Your task to perform on an android device: Search for Mexican restaurants on Maps Image 0: 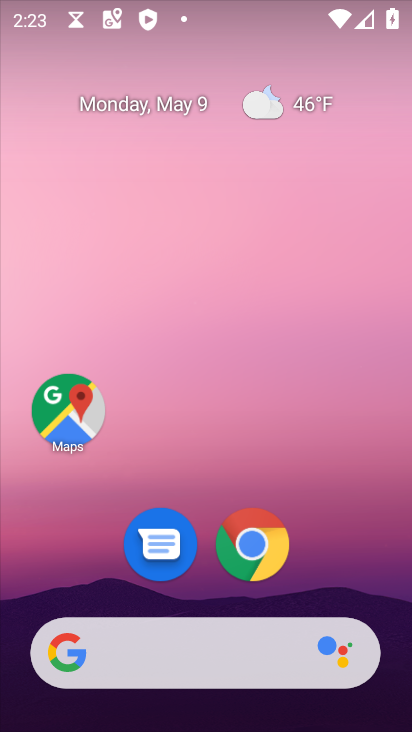
Step 0: click (48, 424)
Your task to perform on an android device: Search for Mexican restaurants on Maps Image 1: 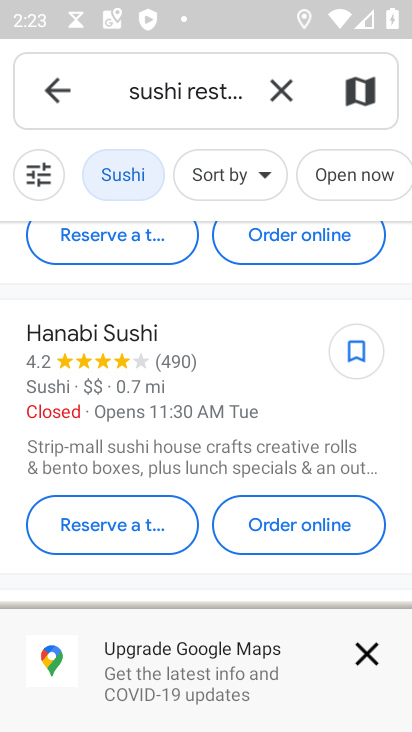
Step 1: click (275, 86)
Your task to perform on an android device: Search for Mexican restaurants on Maps Image 2: 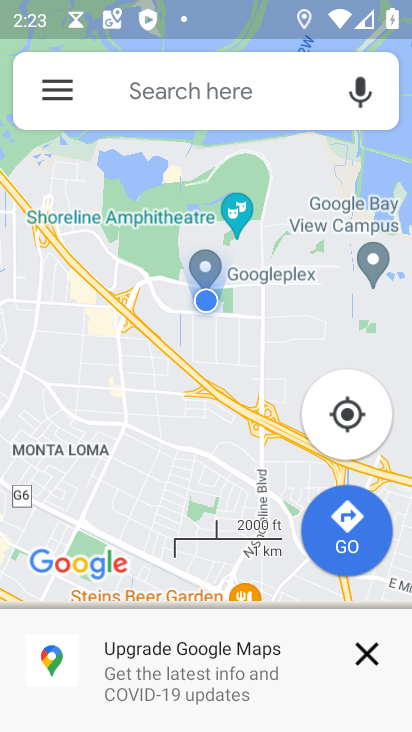
Step 2: click (216, 81)
Your task to perform on an android device: Search for Mexican restaurants on Maps Image 3: 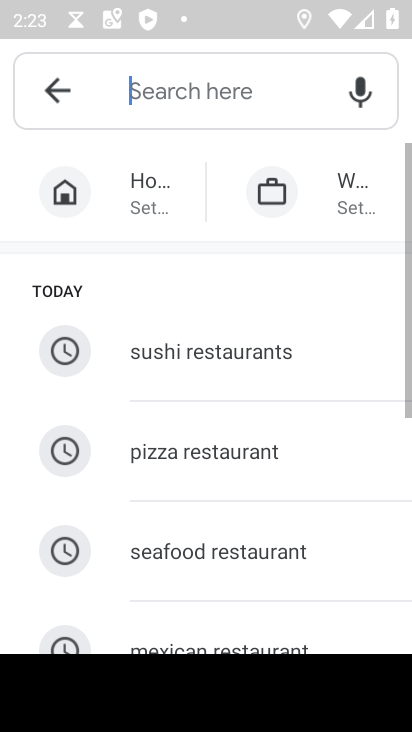
Step 3: drag from (230, 582) to (226, 308)
Your task to perform on an android device: Search for Mexican restaurants on Maps Image 4: 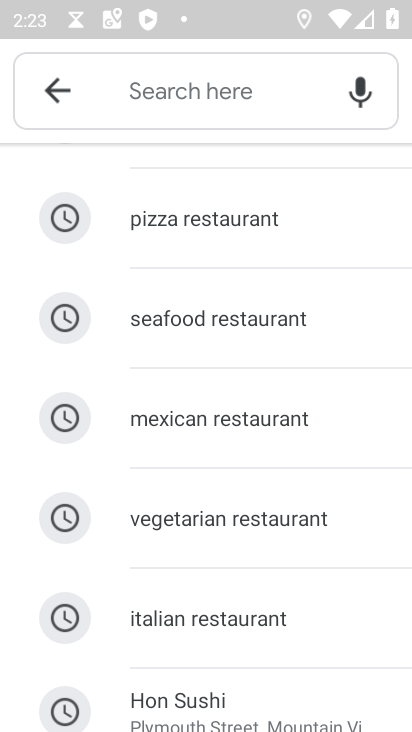
Step 4: click (187, 422)
Your task to perform on an android device: Search for Mexican restaurants on Maps Image 5: 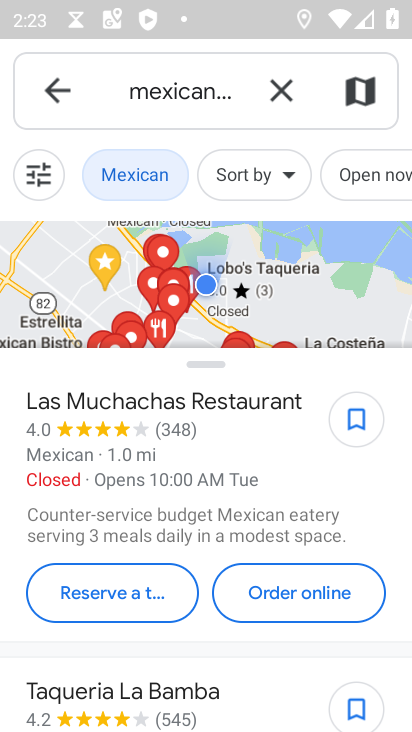
Step 5: task complete